Your task to perform on an android device: turn on the 24-hour format for clock Image 0: 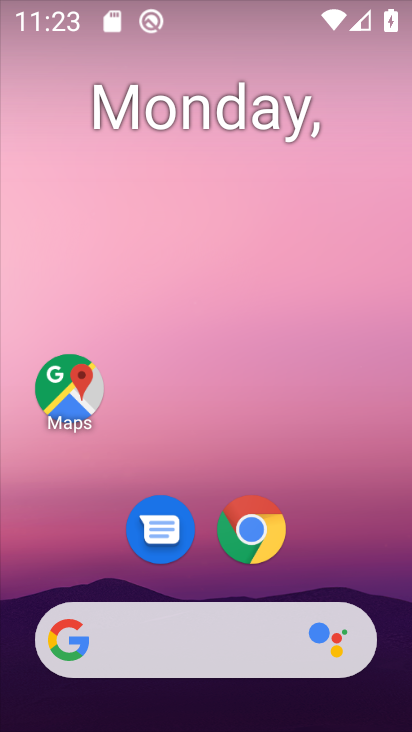
Step 0: drag from (337, 555) to (314, 172)
Your task to perform on an android device: turn on the 24-hour format for clock Image 1: 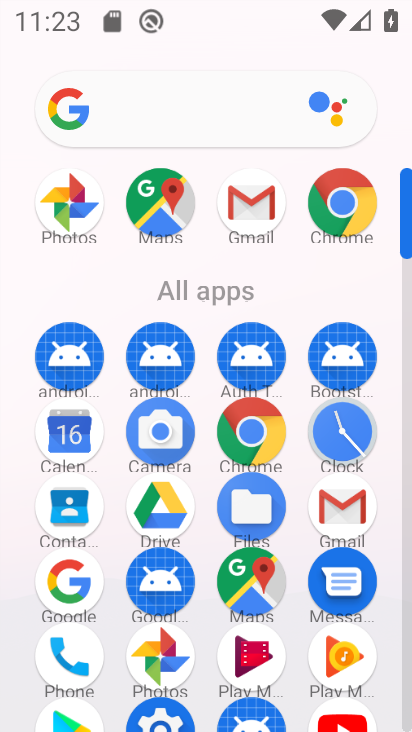
Step 1: click (347, 429)
Your task to perform on an android device: turn on the 24-hour format for clock Image 2: 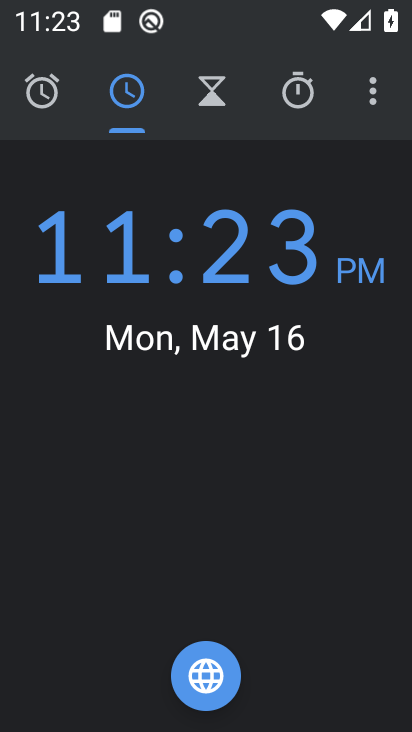
Step 2: click (381, 86)
Your task to perform on an android device: turn on the 24-hour format for clock Image 3: 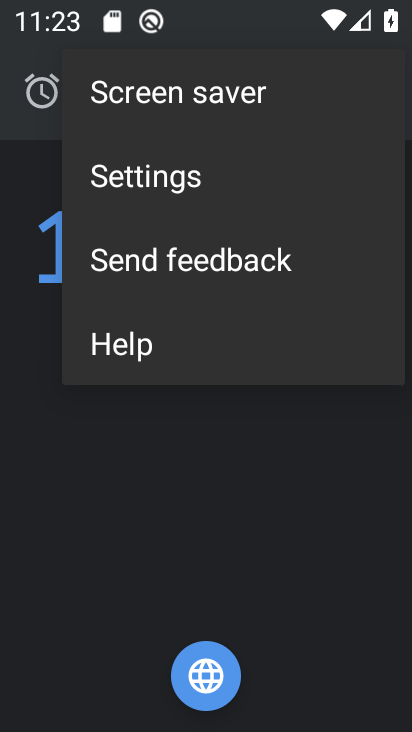
Step 3: click (200, 179)
Your task to perform on an android device: turn on the 24-hour format for clock Image 4: 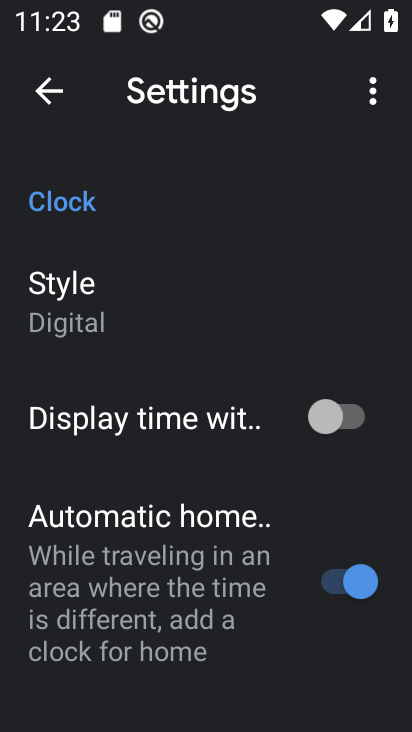
Step 4: drag from (232, 647) to (234, 223)
Your task to perform on an android device: turn on the 24-hour format for clock Image 5: 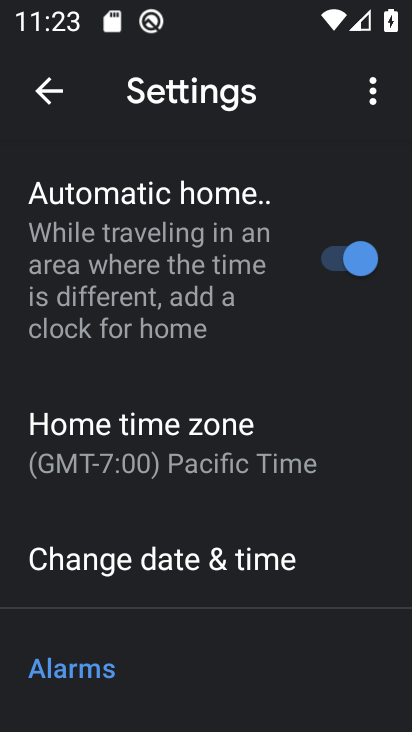
Step 5: click (254, 564)
Your task to perform on an android device: turn on the 24-hour format for clock Image 6: 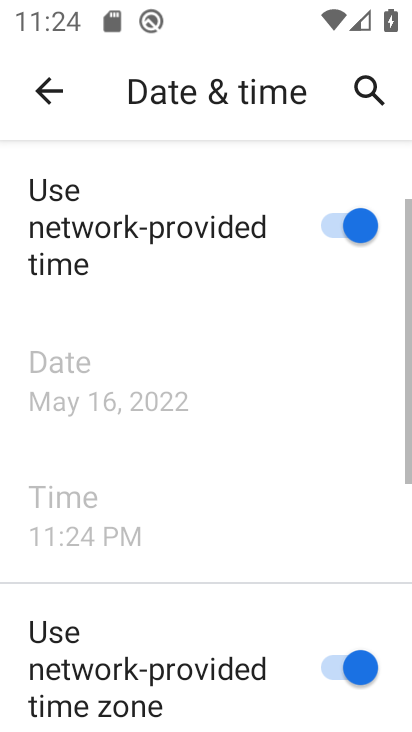
Step 6: drag from (244, 578) to (233, 307)
Your task to perform on an android device: turn on the 24-hour format for clock Image 7: 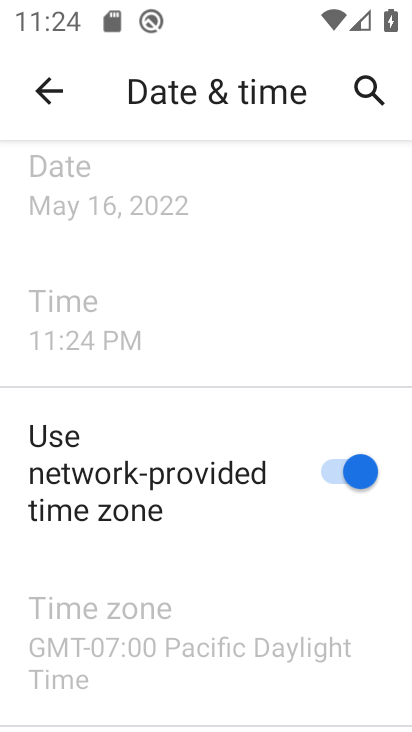
Step 7: drag from (250, 600) to (273, 260)
Your task to perform on an android device: turn on the 24-hour format for clock Image 8: 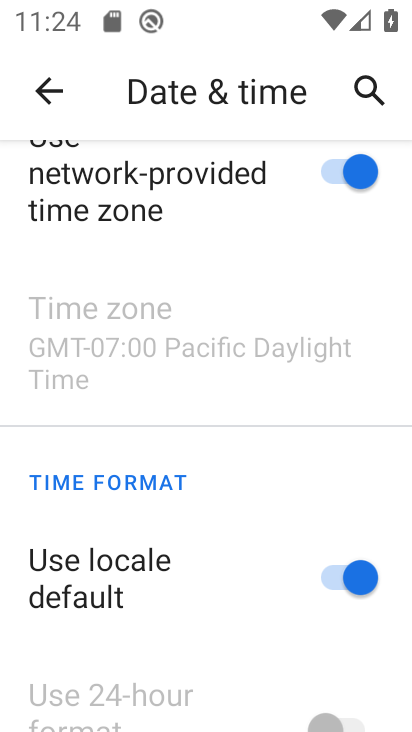
Step 8: drag from (213, 601) to (242, 327)
Your task to perform on an android device: turn on the 24-hour format for clock Image 9: 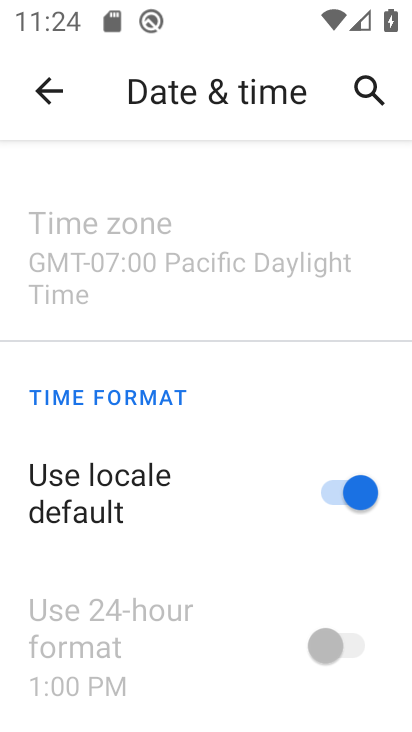
Step 9: click (335, 493)
Your task to perform on an android device: turn on the 24-hour format for clock Image 10: 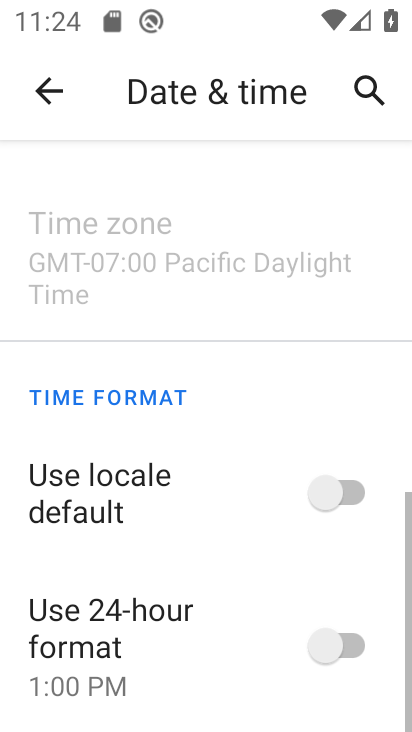
Step 10: click (353, 641)
Your task to perform on an android device: turn on the 24-hour format for clock Image 11: 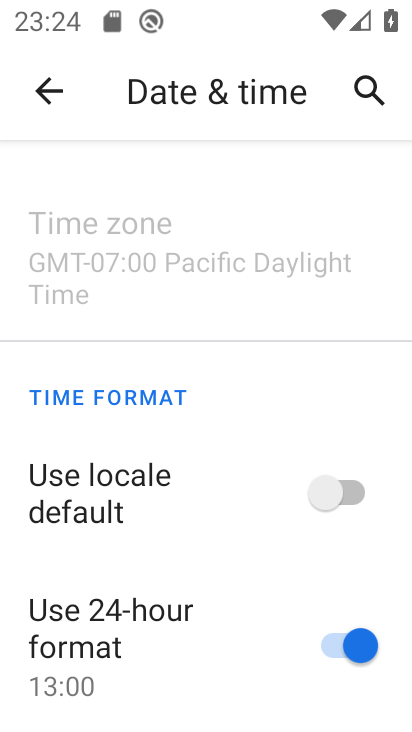
Step 11: task complete